Your task to perform on an android device: turn off improve location accuracy Image 0: 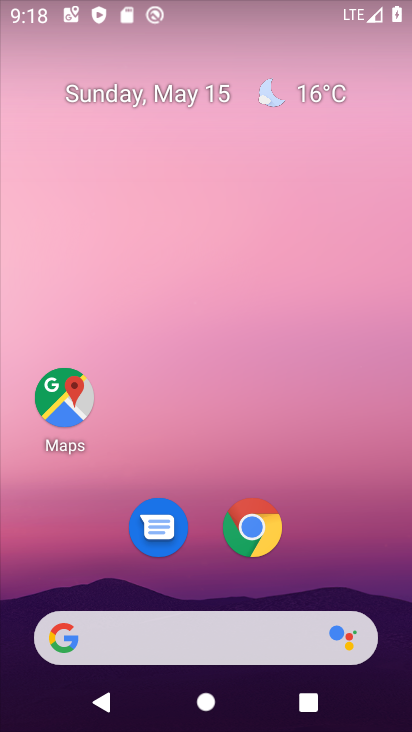
Step 0: drag from (371, 580) to (309, 0)
Your task to perform on an android device: turn off improve location accuracy Image 1: 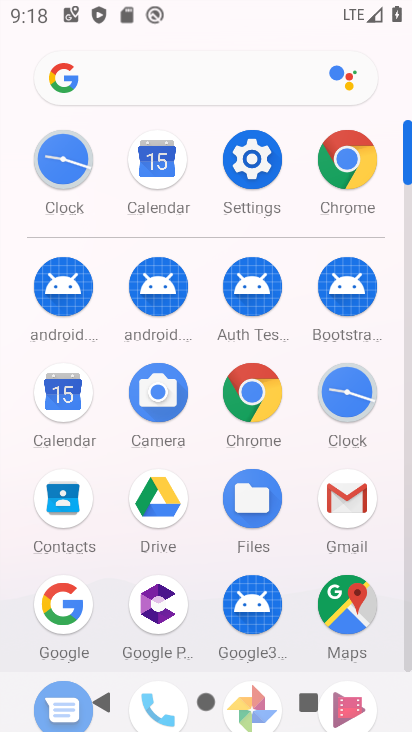
Step 1: click (243, 167)
Your task to perform on an android device: turn off improve location accuracy Image 2: 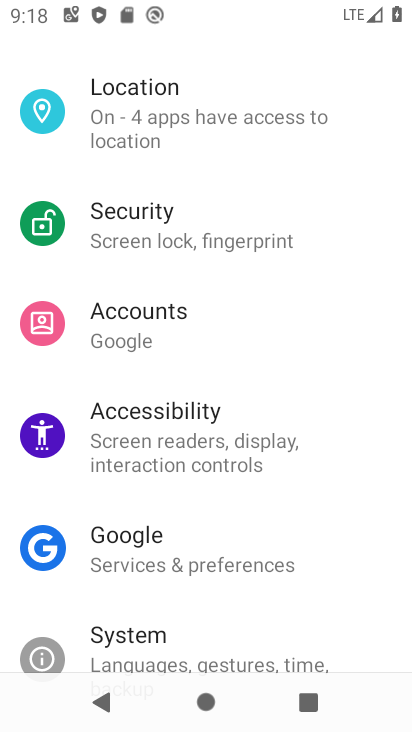
Step 2: click (119, 133)
Your task to perform on an android device: turn off improve location accuracy Image 3: 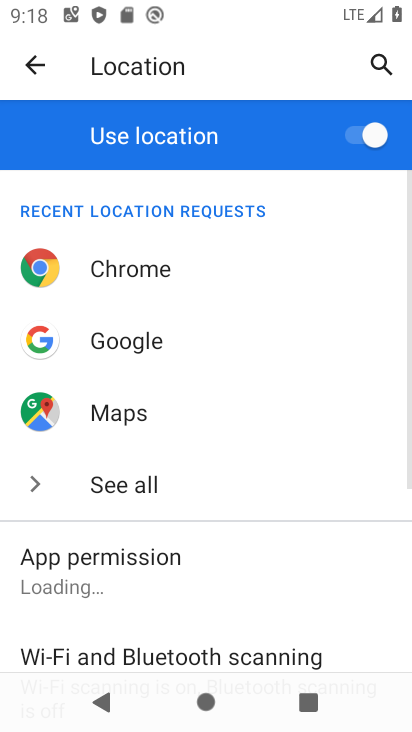
Step 3: drag from (216, 391) to (194, 52)
Your task to perform on an android device: turn off improve location accuracy Image 4: 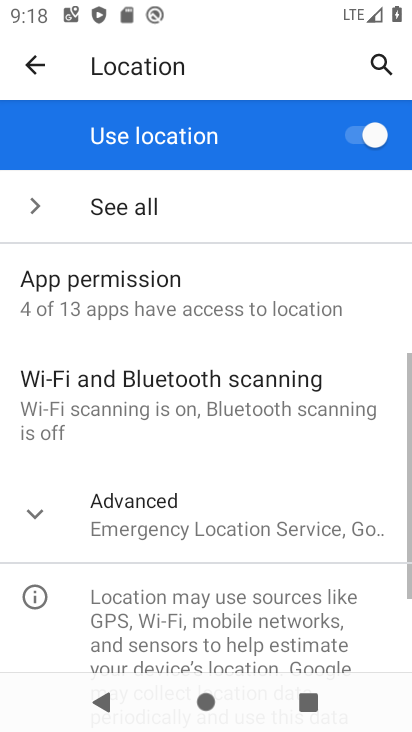
Step 4: click (29, 518)
Your task to perform on an android device: turn off improve location accuracy Image 5: 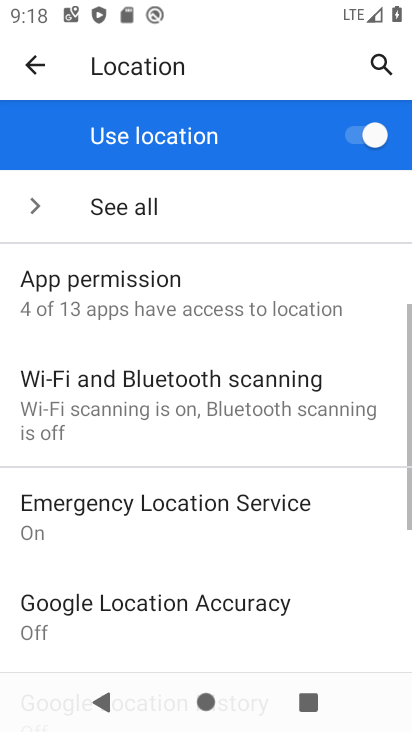
Step 5: drag from (203, 511) to (184, 238)
Your task to perform on an android device: turn off improve location accuracy Image 6: 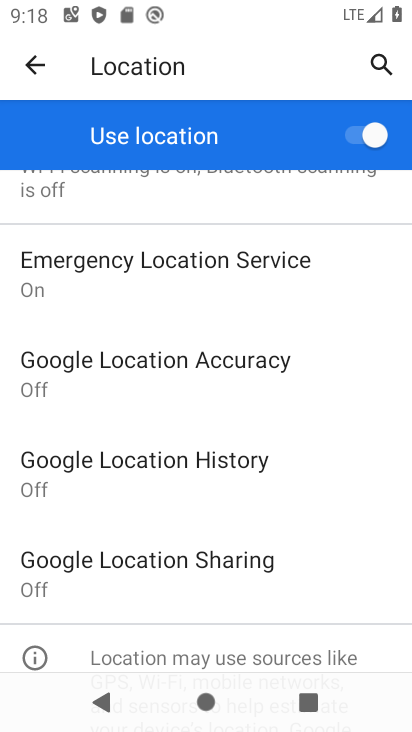
Step 6: click (73, 370)
Your task to perform on an android device: turn off improve location accuracy Image 7: 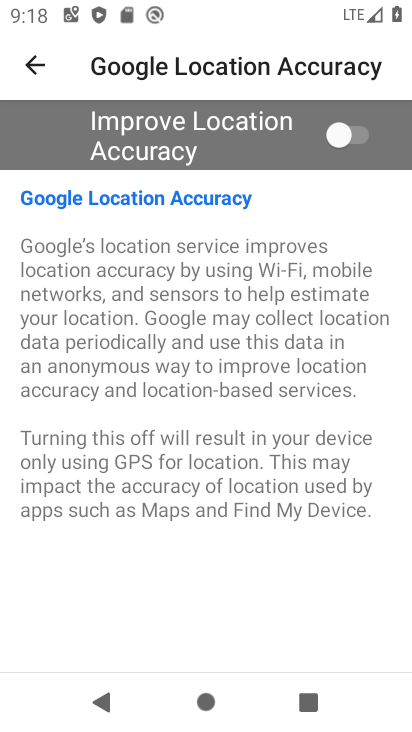
Step 7: task complete